Your task to perform on an android device: change timer sound Image 0: 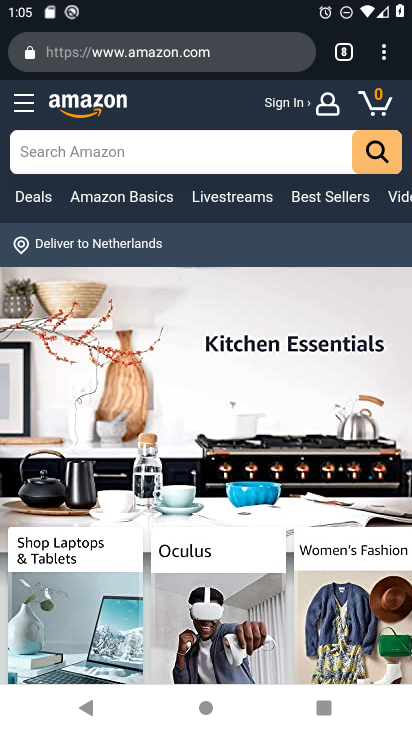
Step 0: press home button
Your task to perform on an android device: change timer sound Image 1: 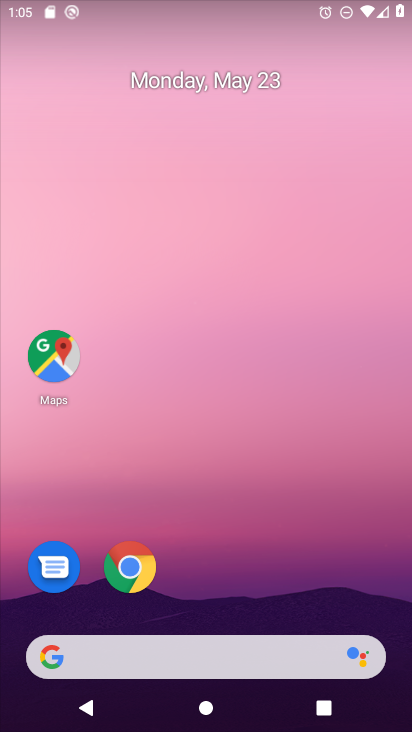
Step 1: drag from (239, 590) to (179, 159)
Your task to perform on an android device: change timer sound Image 2: 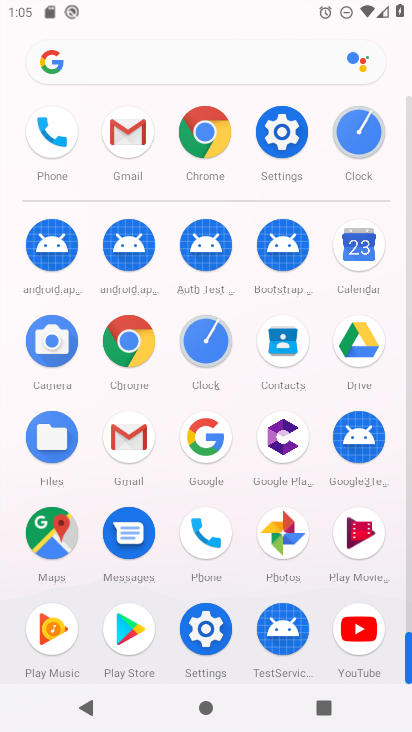
Step 2: click (353, 132)
Your task to perform on an android device: change timer sound Image 3: 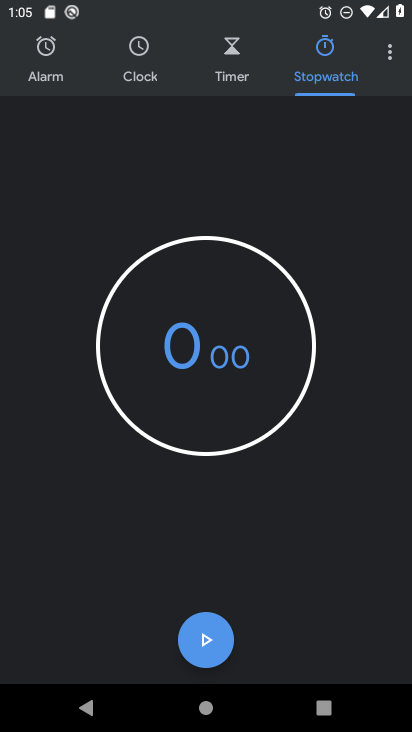
Step 3: click (391, 59)
Your task to perform on an android device: change timer sound Image 4: 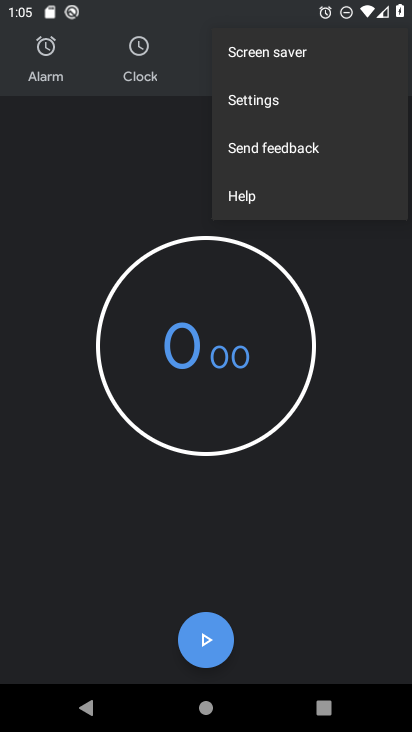
Step 4: click (270, 100)
Your task to perform on an android device: change timer sound Image 5: 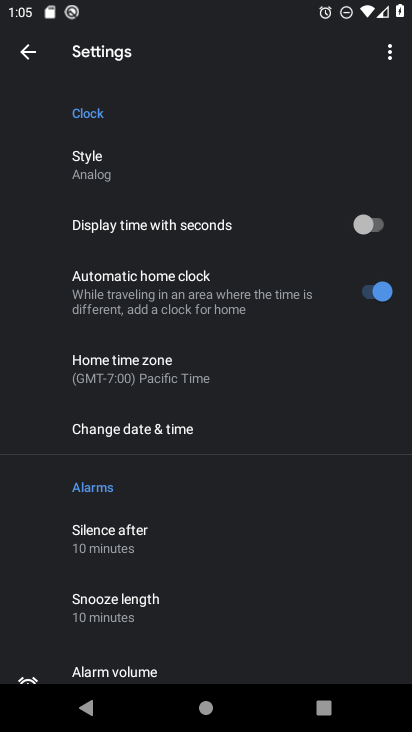
Step 5: drag from (133, 638) to (248, 66)
Your task to perform on an android device: change timer sound Image 6: 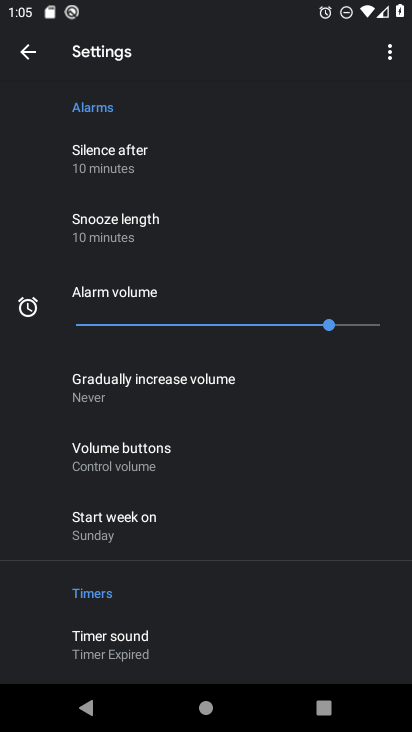
Step 6: drag from (158, 653) to (229, 181)
Your task to perform on an android device: change timer sound Image 7: 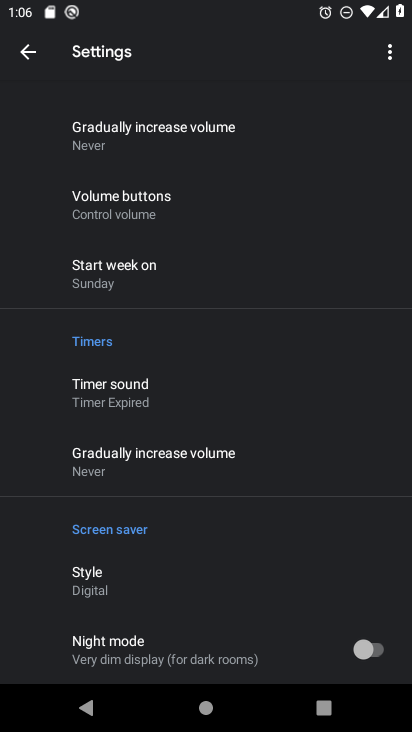
Step 7: click (125, 414)
Your task to perform on an android device: change timer sound Image 8: 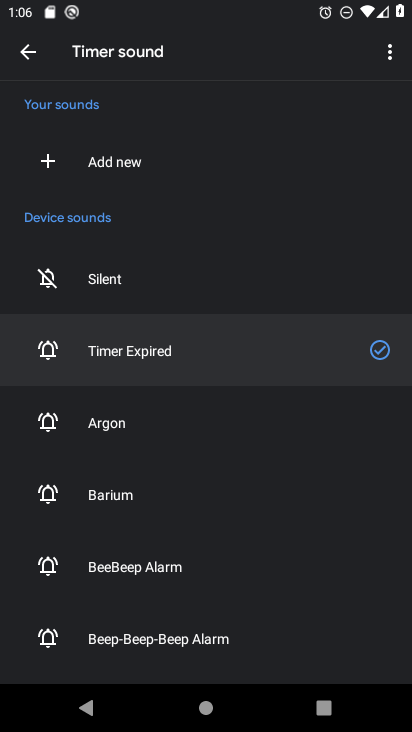
Step 8: click (104, 634)
Your task to perform on an android device: change timer sound Image 9: 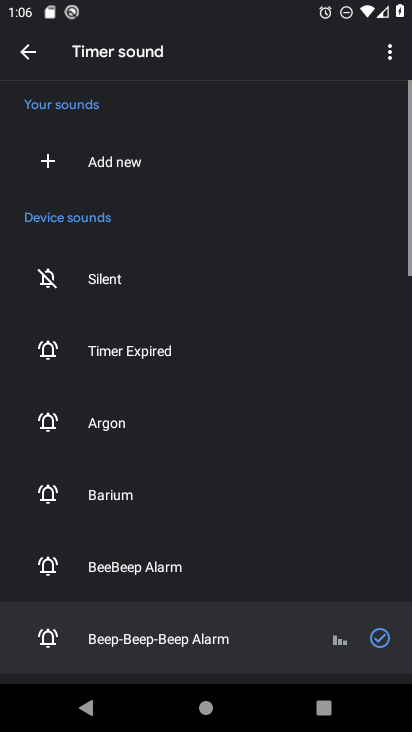
Step 9: task complete